Your task to perform on an android device: check storage Image 0: 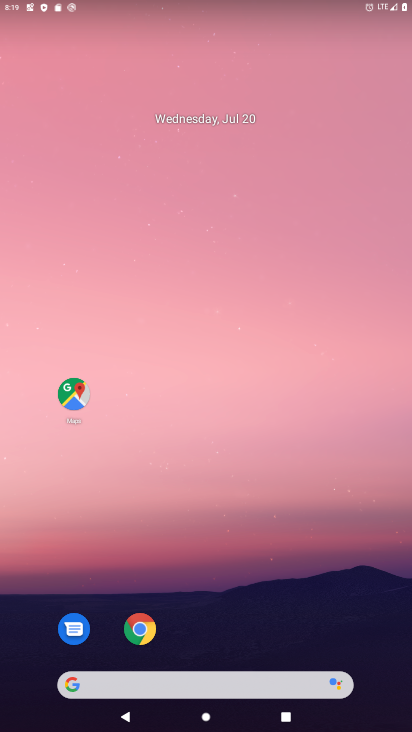
Step 0: drag from (174, 377) to (173, 100)
Your task to perform on an android device: check storage Image 1: 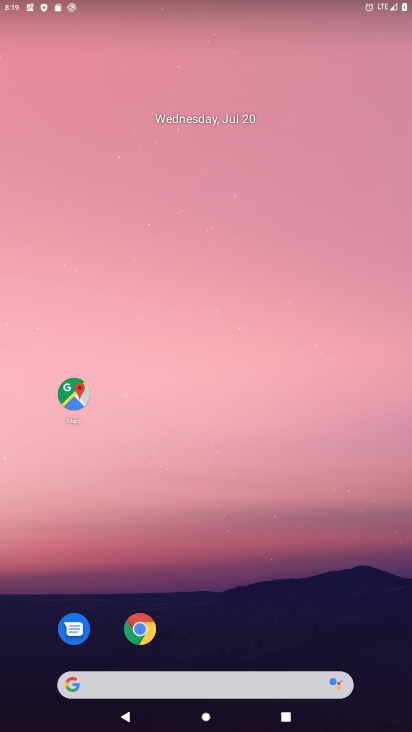
Step 1: drag from (177, 288) to (177, 202)
Your task to perform on an android device: check storage Image 2: 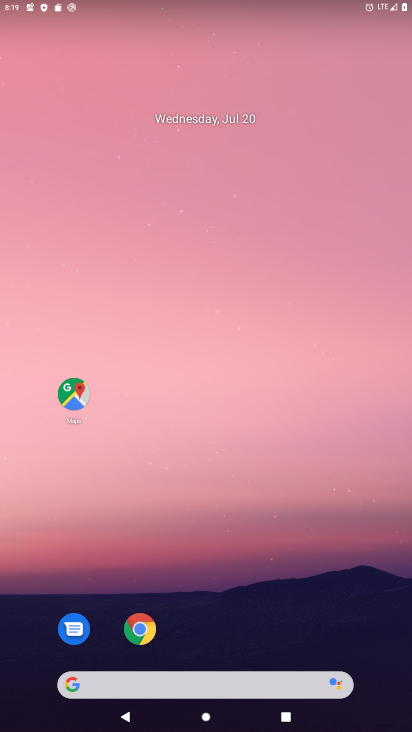
Step 2: drag from (183, 633) to (190, 230)
Your task to perform on an android device: check storage Image 3: 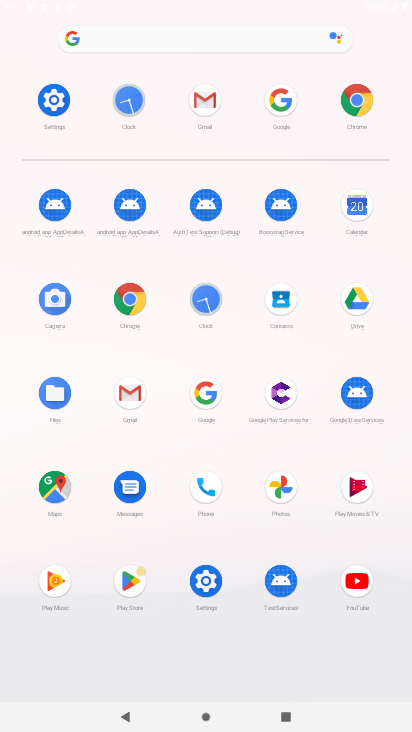
Step 3: click (53, 108)
Your task to perform on an android device: check storage Image 4: 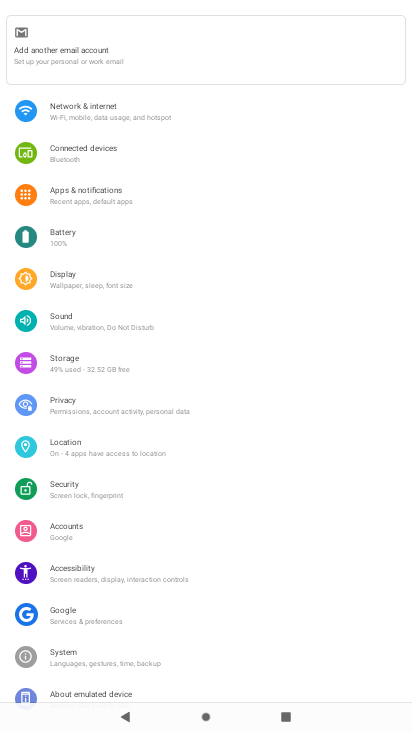
Step 4: click (75, 361)
Your task to perform on an android device: check storage Image 5: 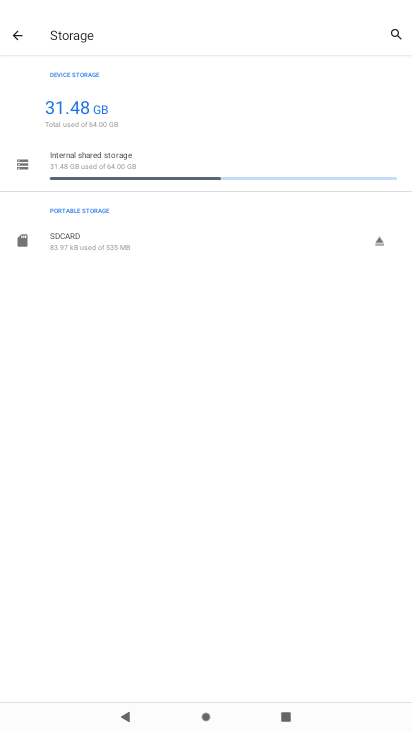
Step 5: task complete